Your task to perform on an android device: open device folders in google photos Image 0: 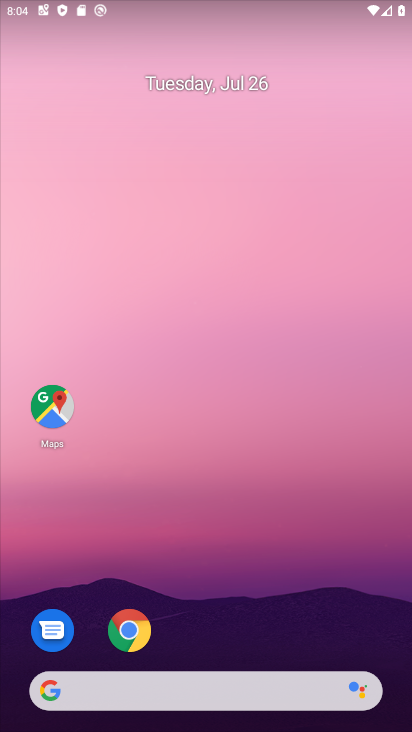
Step 0: drag from (286, 647) to (273, 48)
Your task to perform on an android device: open device folders in google photos Image 1: 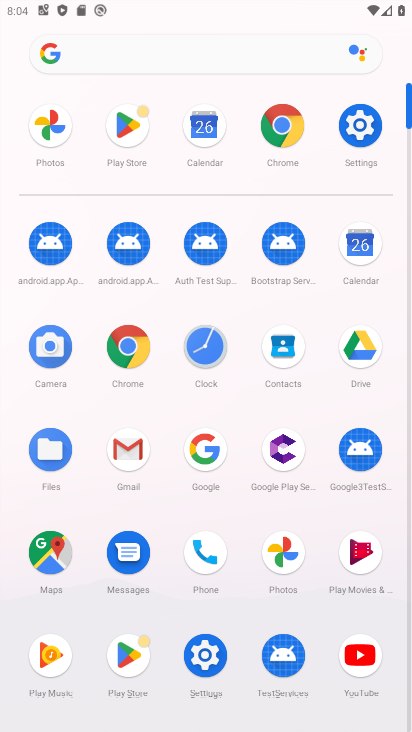
Step 1: click (295, 557)
Your task to perform on an android device: open device folders in google photos Image 2: 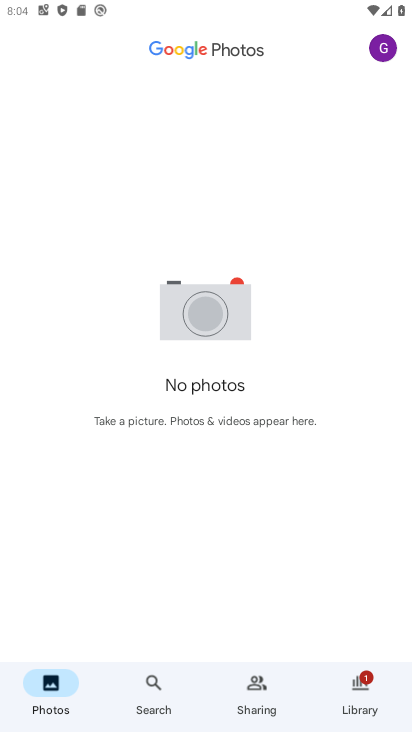
Step 2: click (366, 673)
Your task to perform on an android device: open device folders in google photos Image 3: 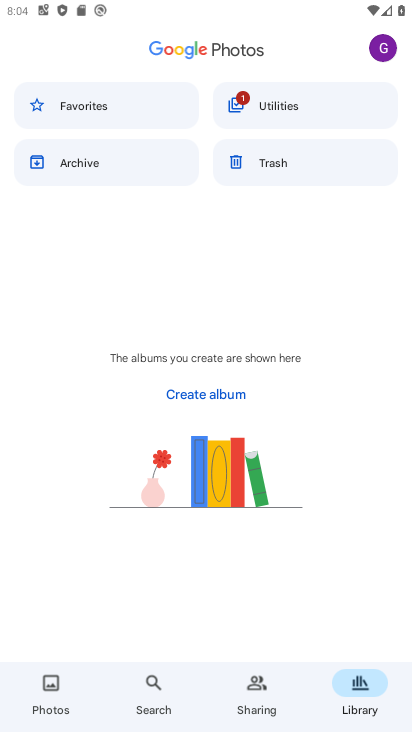
Step 3: click (391, 51)
Your task to perform on an android device: open device folders in google photos Image 4: 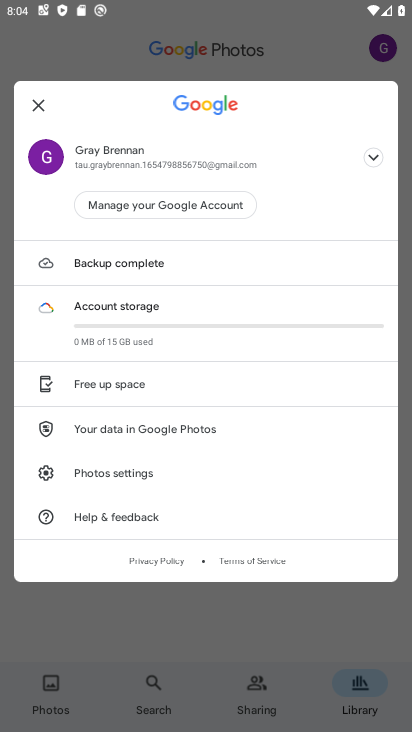
Step 4: task complete